Your task to perform on an android device: Is it going to rain today? Image 0: 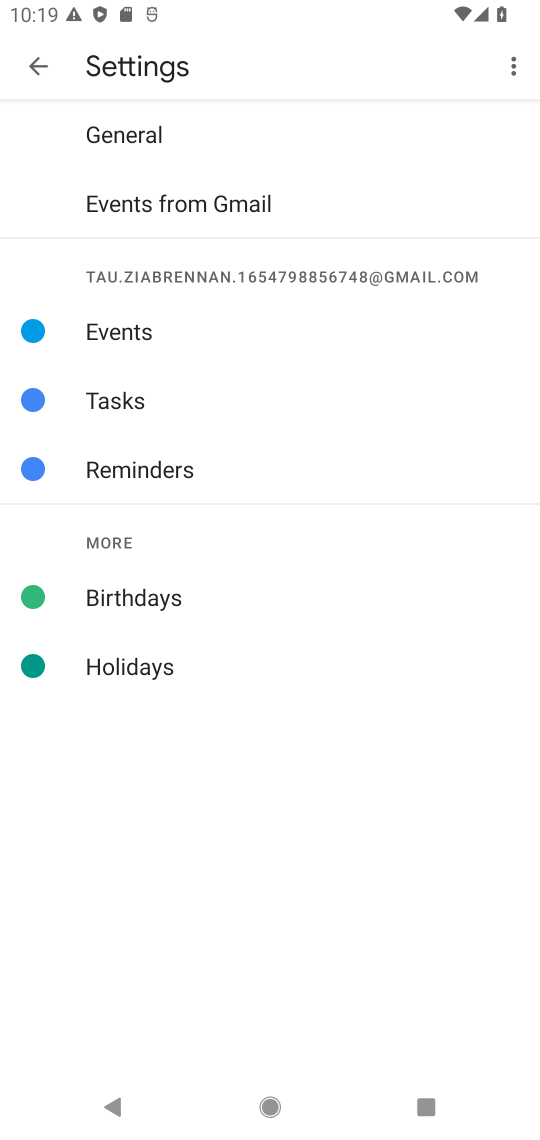
Step 0: press home button
Your task to perform on an android device: Is it going to rain today? Image 1: 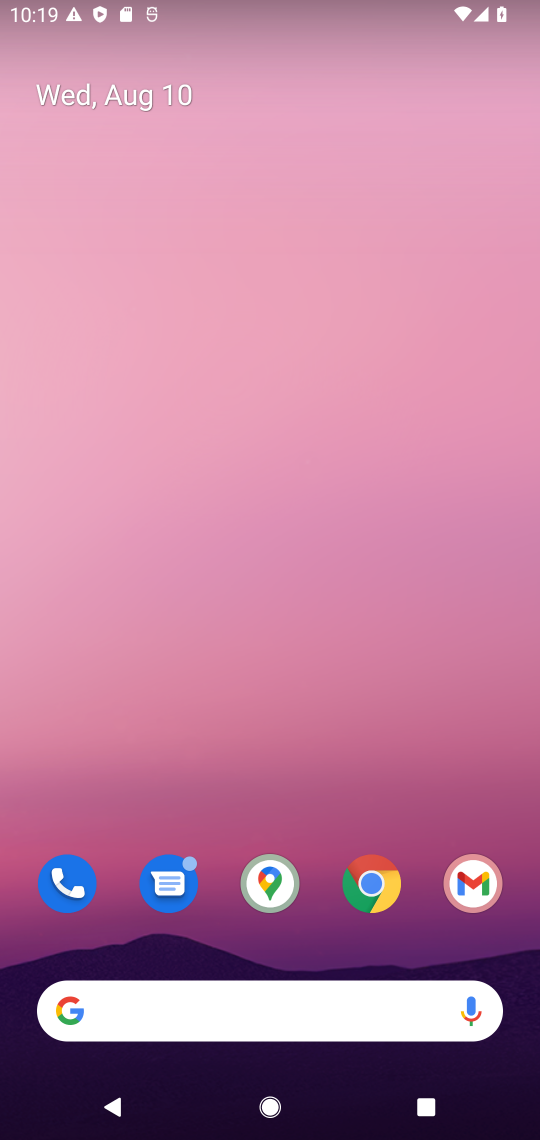
Step 1: drag from (312, 837) to (343, 3)
Your task to perform on an android device: Is it going to rain today? Image 2: 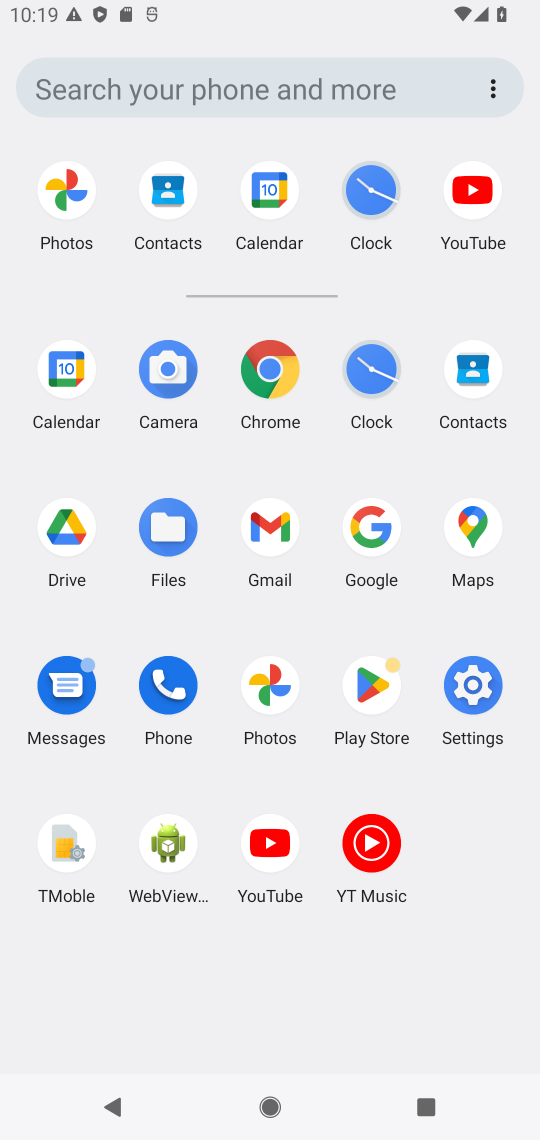
Step 2: click (275, 373)
Your task to perform on an android device: Is it going to rain today? Image 3: 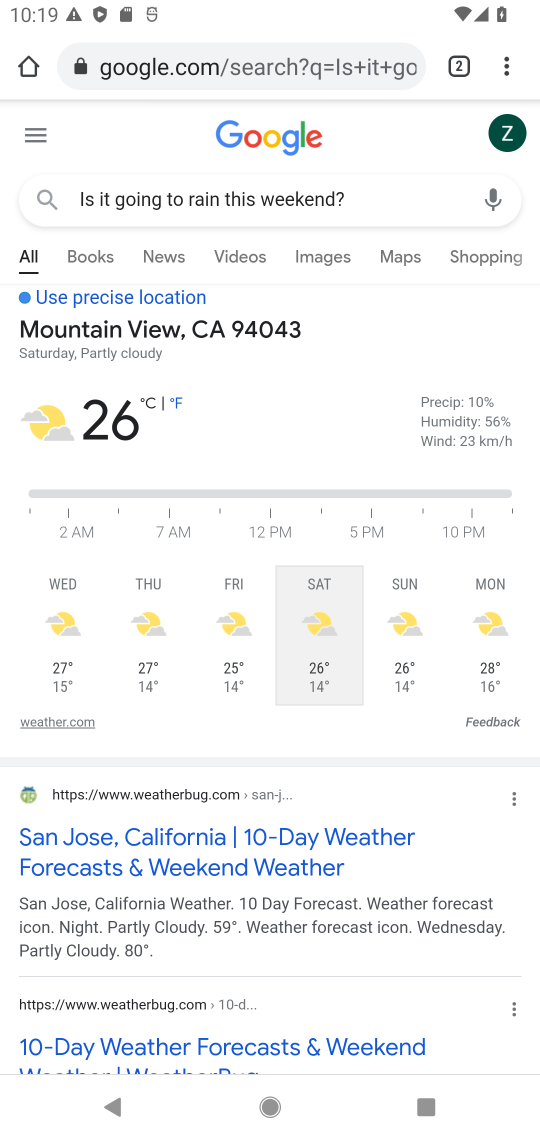
Step 3: click (368, 202)
Your task to perform on an android device: Is it going to rain today? Image 4: 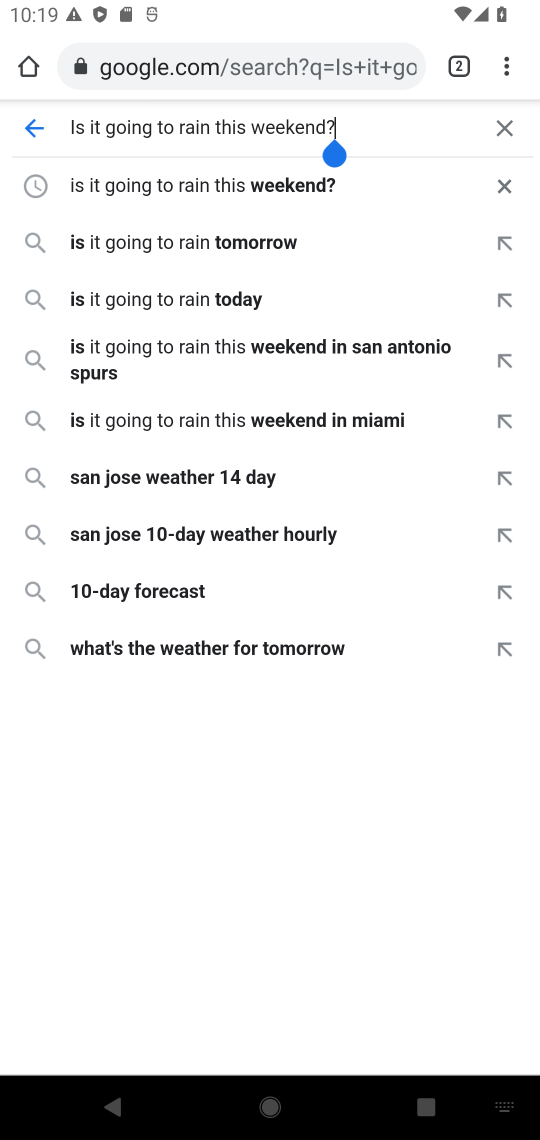
Step 4: click (313, 63)
Your task to perform on an android device: Is it going to rain today? Image 5: 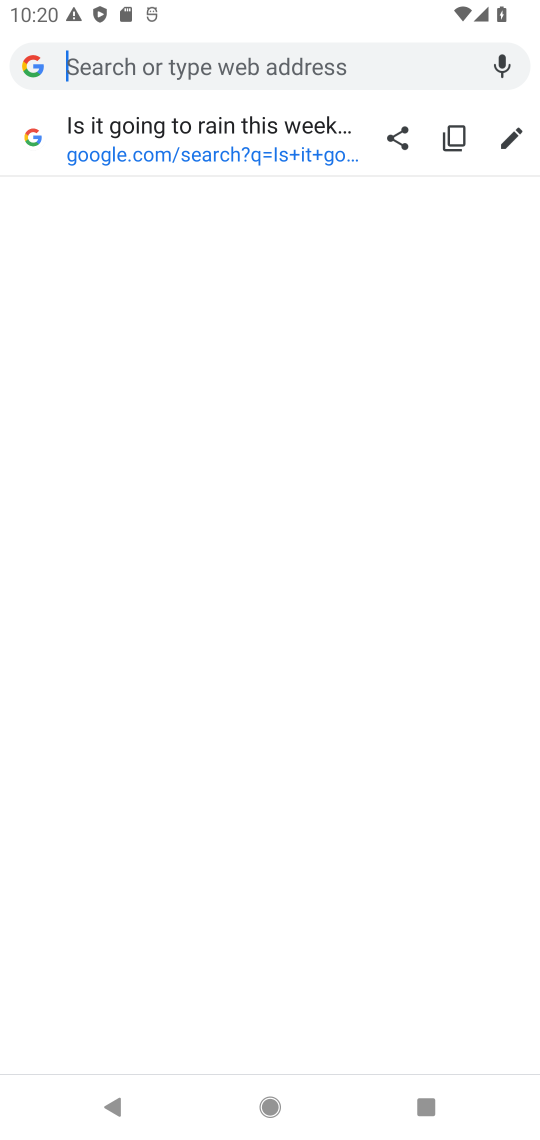
Step 5: type "Is it going to rain today?"
Your task to perform on an android device: Is it going to rain today? Image 6: 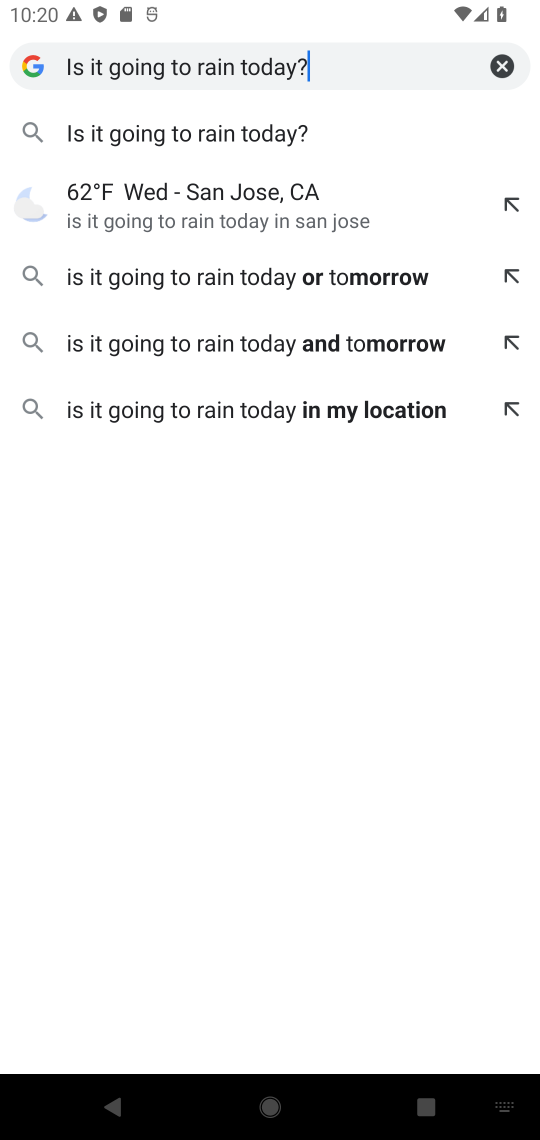
Step 6: click (182, 125)
Your task to perform on an android device: Is it going to rain today? Image 7: 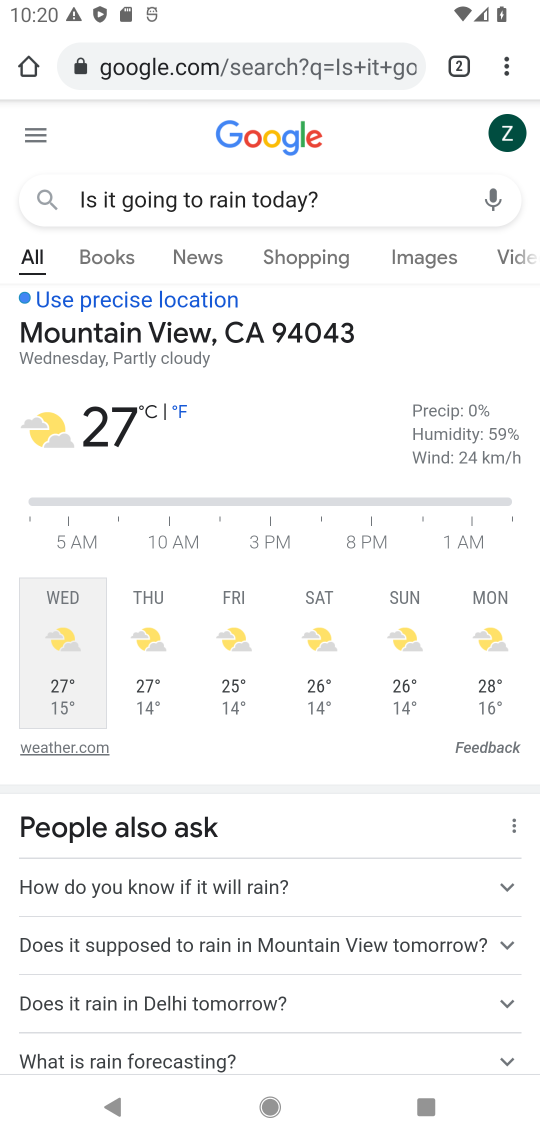
Step 7: task complete